Your task to perform on an android device: Set the phone to "Do not disturb". Image 0: 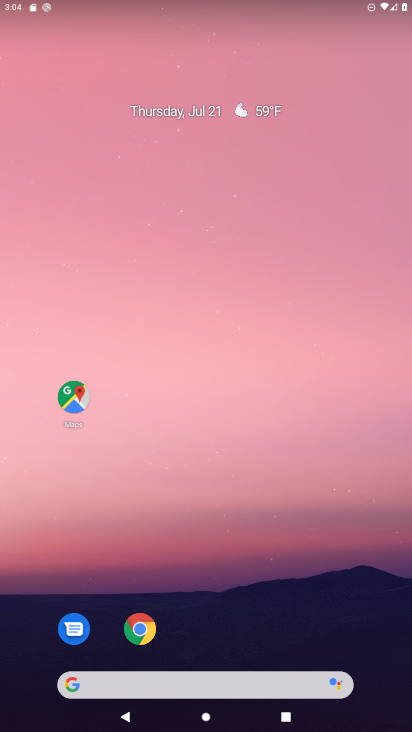
Step 0: drag from (225, 728) to (241, 70)
Your task to perform on an android device: Set the phone to "Do not disturb". Image 1: 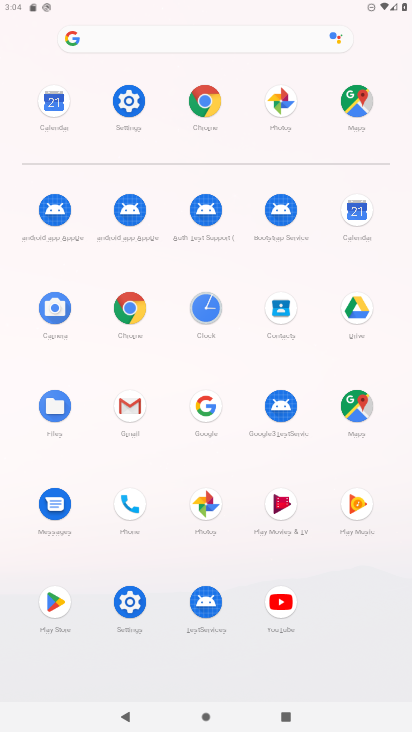
Step 1: click (134, 98)
Your task to perform on an android device: Set the phone to "Do not disturb". Image 2: 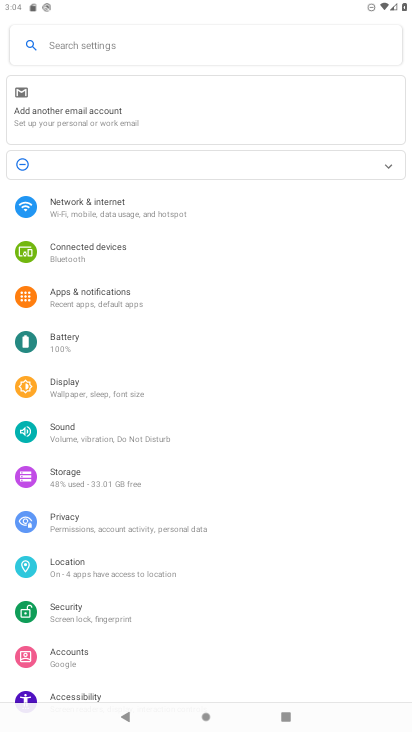
Step 2: click (161, 437)
Your task to perform on an android device: Set the phone to "Do not disturb". Image 3: 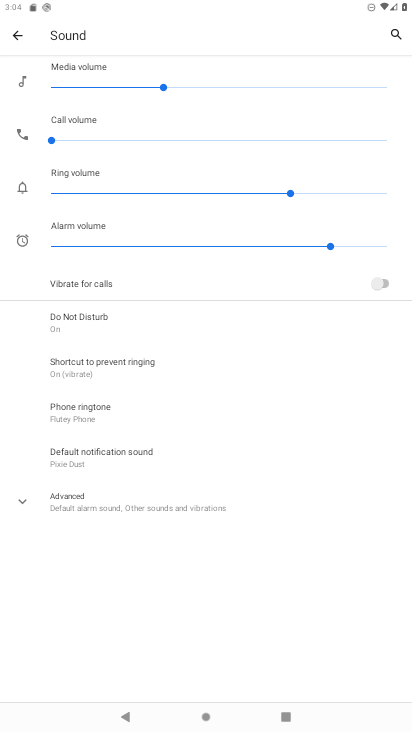
Step 3: click (90, 321)
Your task to perform on an android device: Set the phone to "Do not disturb". Image 4: 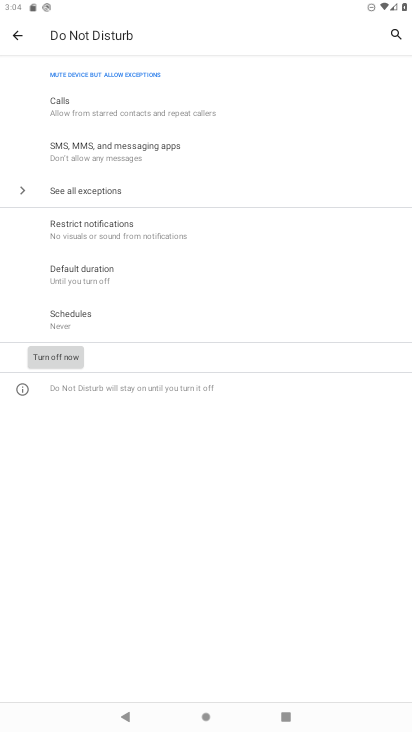
Step 4: task complete